Your task to perform on an android device: change notification settings in the gmail app Image 0: 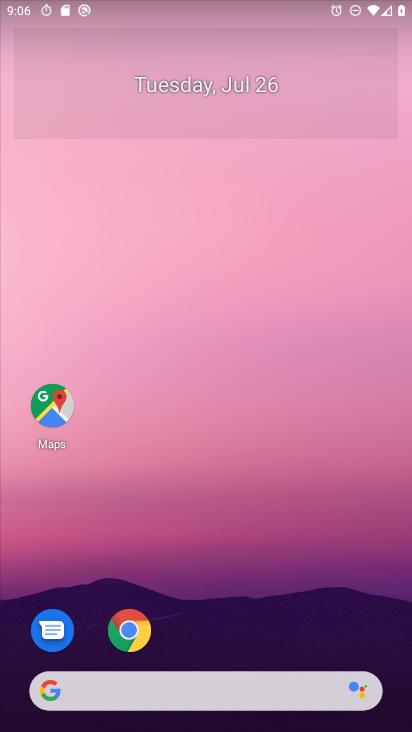
Step 0: drag from (242, 632) to (216, 165)
Your task to perform on an android device: change notification settings in the gmail app Image 1: 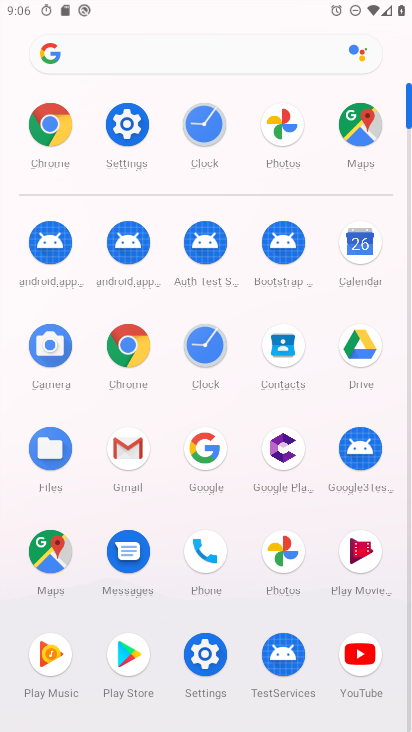
Step 1: click (133, 456)
Your task to perform on an android device: change notification settings in the gmail app Image 2: 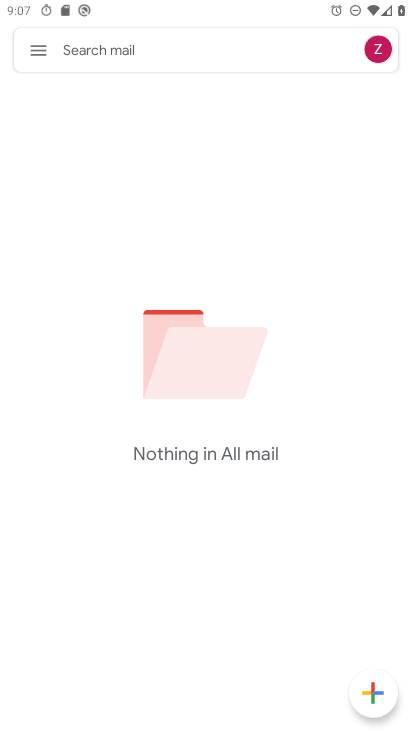
Step 2: click (44, 50)
Your task to perform on an android device: change notification settings in the gmail app Image 3: 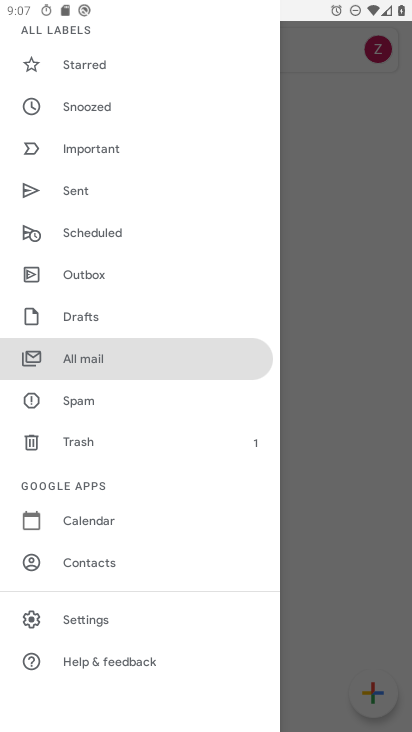
Step 3: click (109, 625)
Your task to perform on an android device: change notification settings in the gmail app Image 4: 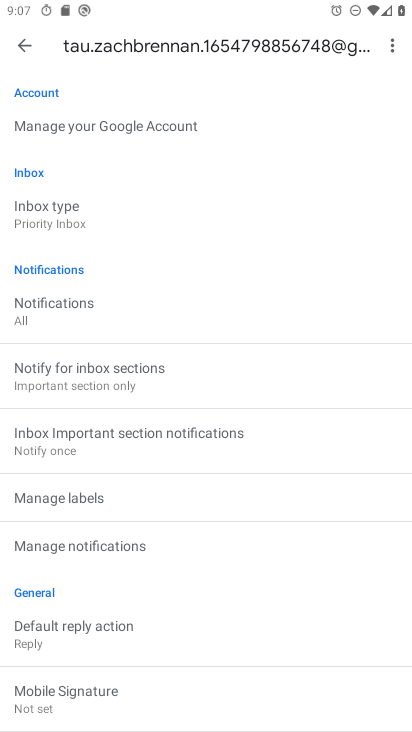
Step 4: click (131, 542)
Your task to perform on an android device: change notification settings in the gmail app Image 5: 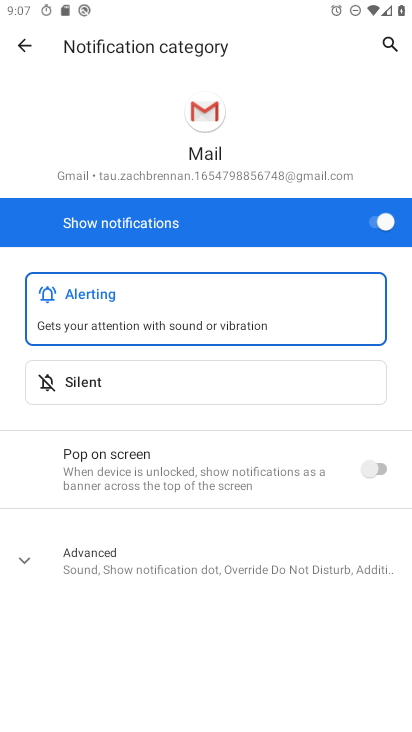
Step 5: click (384, 224)
Your task to perform on an android device: change notification settings in the gmail app Image 6: 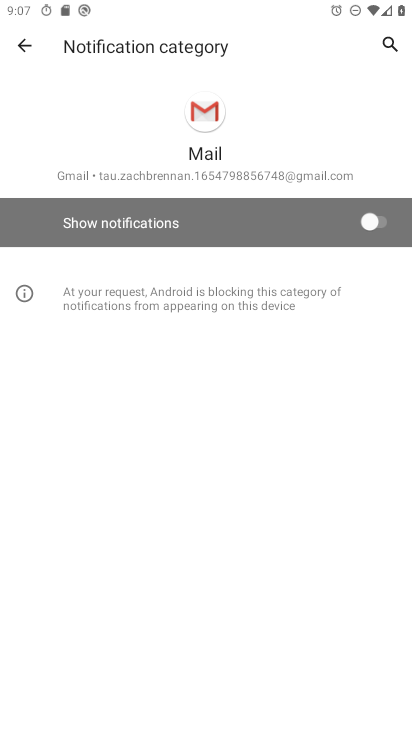
Step 6: task complete